Your task to perform on an android device: set an alarm Image 0: 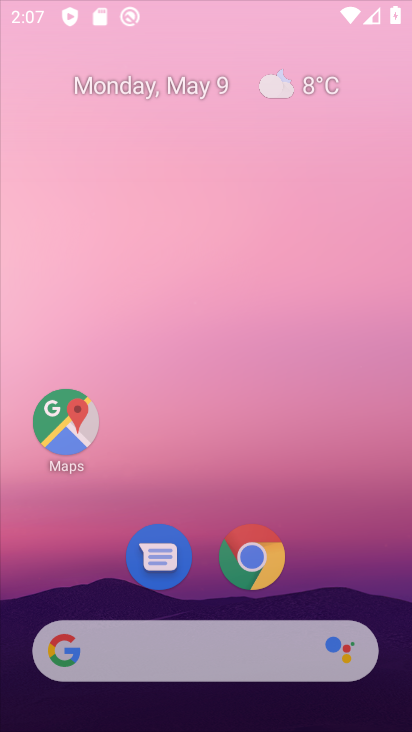
Step 0: press home button
Your task to perform on an android device: set an alarm Image 1: 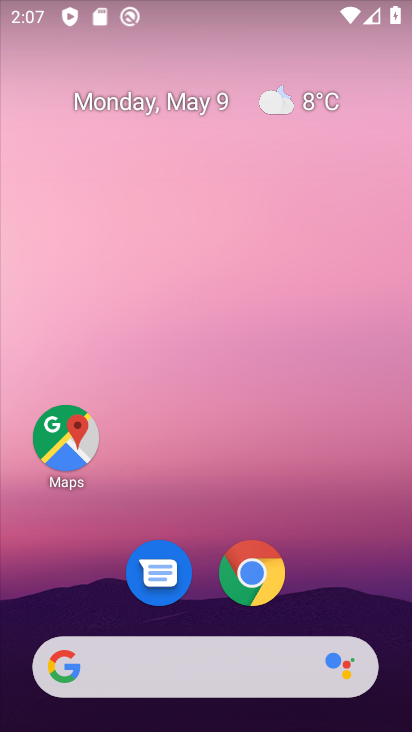
Step 1: drag from (191, 661) to (370, 58)
Your task to perform on an android device: set an alarm Image 2: 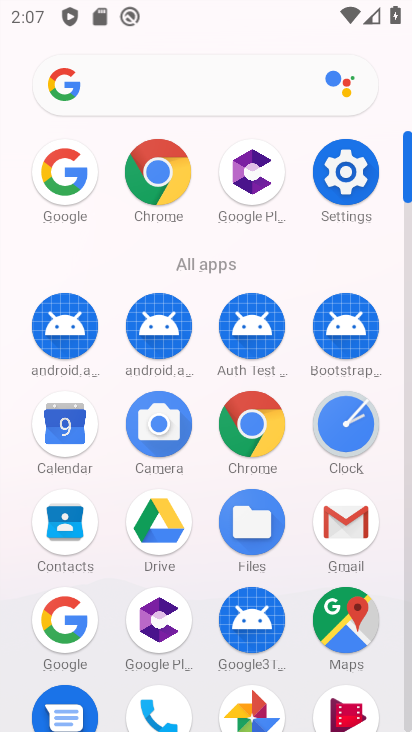
Step 2: click (342, 424)
Your task to perform on an android device: set an alarm Image 3: 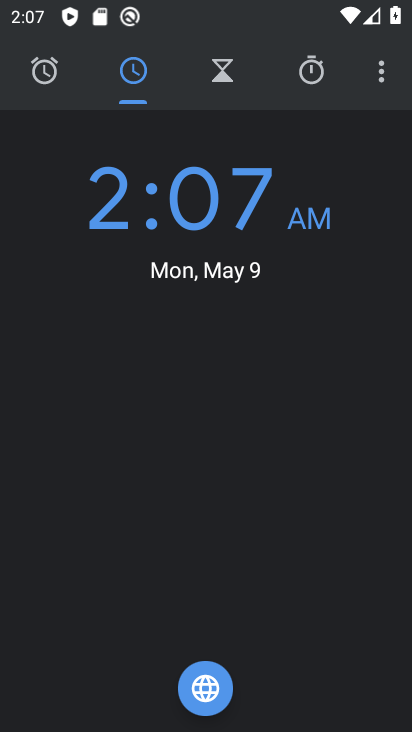
Step 3: click (39, 71)
Your task to perform on an android device: set an alarm Image 4: 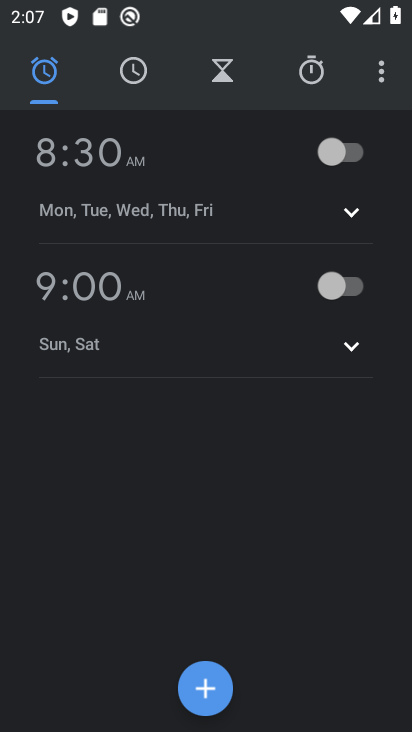
Step 4: click (156, 157)
Your task to perform on an android device: set an alarm Image 5: 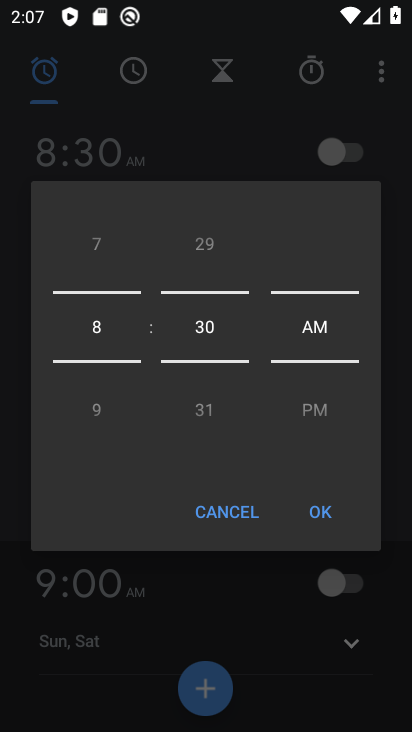
Step 5: drag from (100, 406) to (174, 232)
Your task to perform on an android device: set an alarm Image 6: 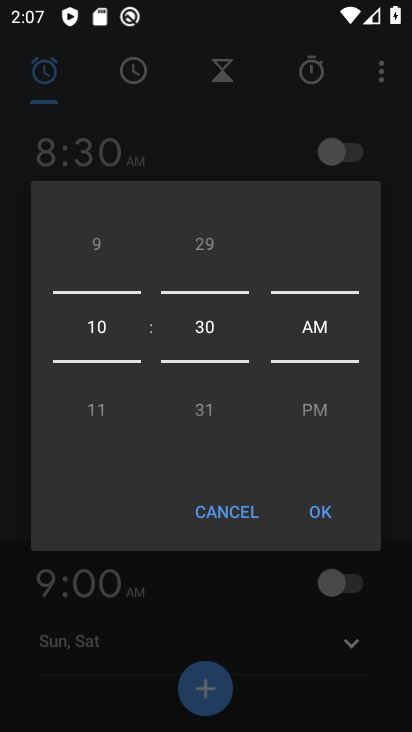
Step 6: drag from (218, 315) to (199, 540)
Your task to perform on an android device: set an alarm Image 7: 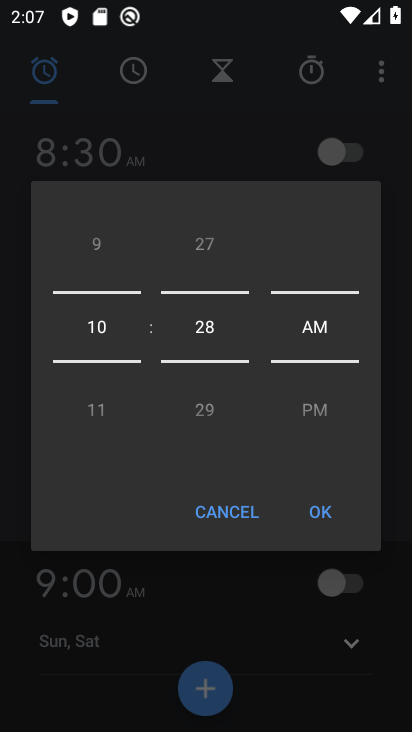
Step 7: drag from (310, 392) to (362, 282)
Your task to perform on an android device: set an alarm Image 8: 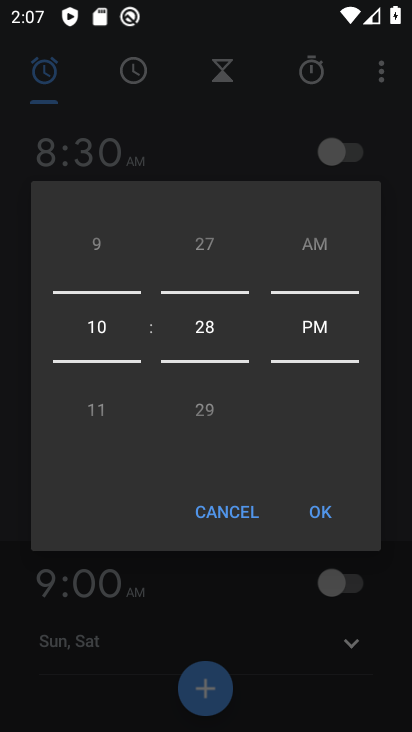
Step 8: click (322, 514)
Your task to perform on an android device: set an alarm Image 9: 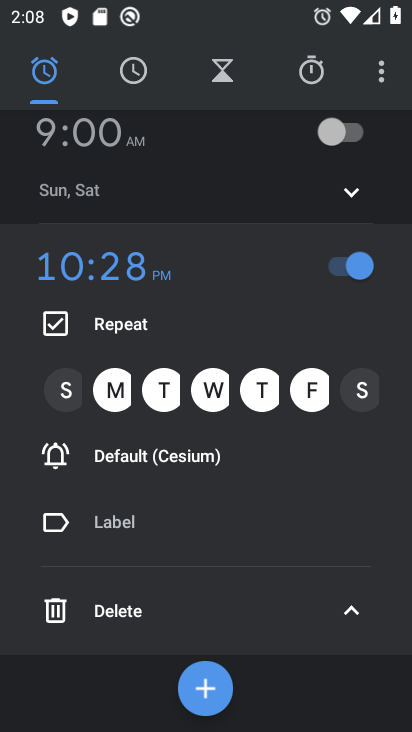
Step 9: task complete